Your task to perform on an android device: Go to Google maps Image 0: 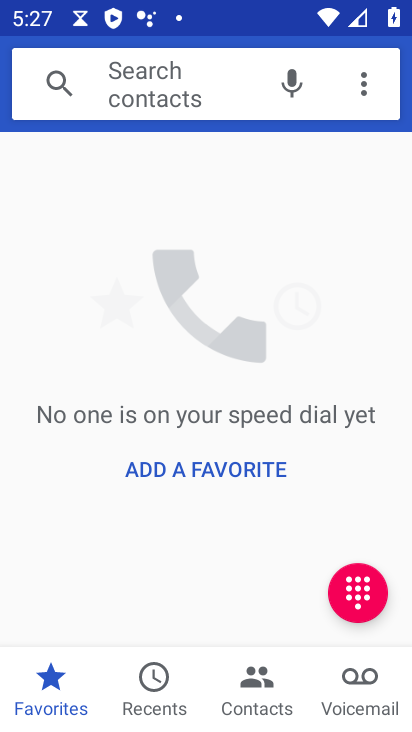
Step 0: press back button
Your task to perform on an android device: Go to Google maps Image 1: 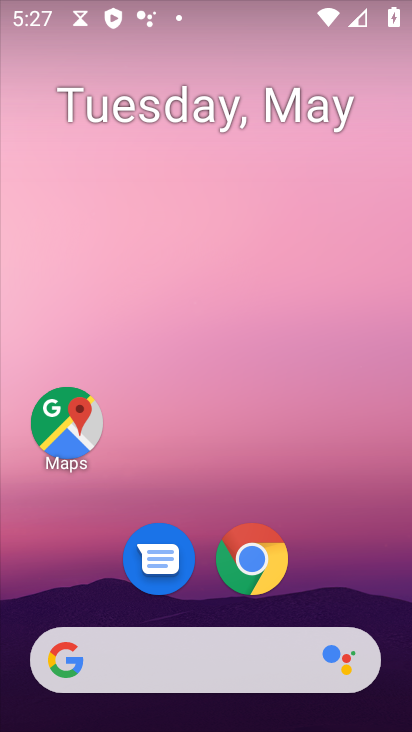
Step 1: drag from (356, 661) to (237, 14)
Your task to perform on an android device: Go to Google maps Image 2: 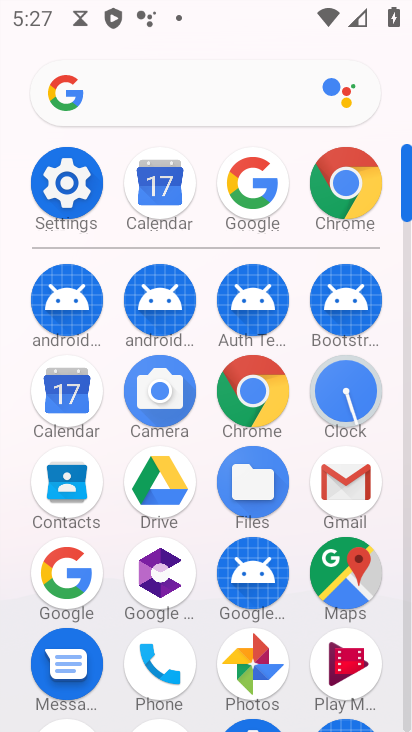
Step 2: click (249, 196)
Your task to perform on an android device: Go to Google maps Image 3: 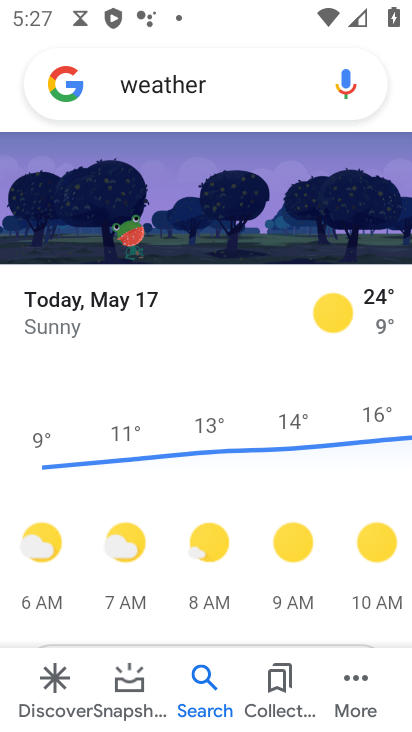
Step 3: press back button
Your task to perform on an android device: Go to Google maps Image 4: 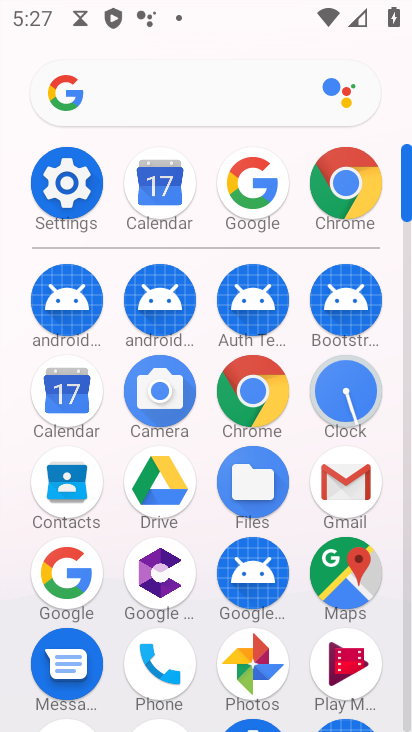
Step 4: click (352, 587)
Your task to perform on an android device: Go to Google maps Image 5: 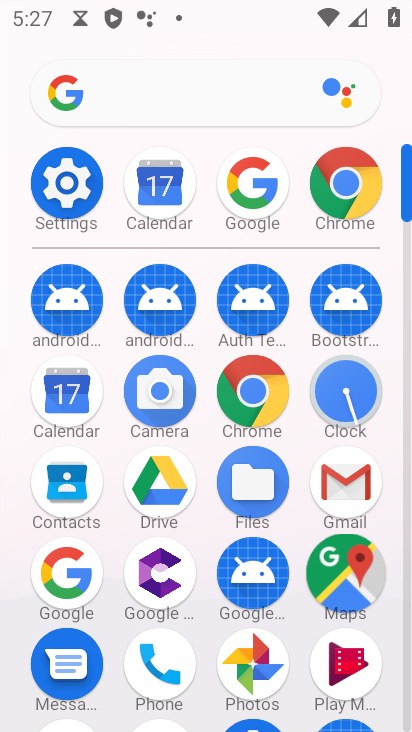
Step 5: click (354, 584)
Your task to perform on an android device: Go to Google maps Image 6: 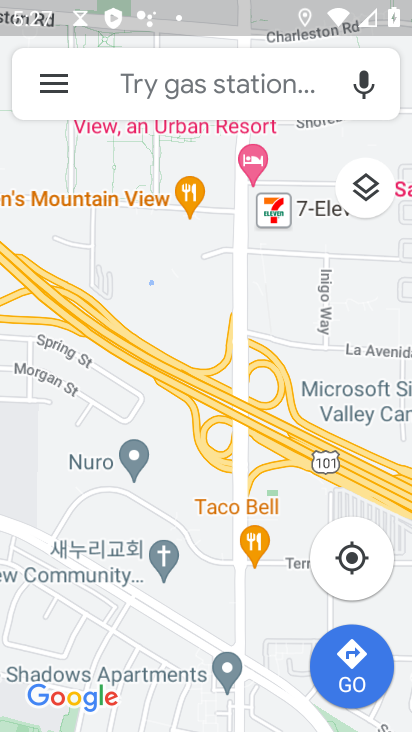
Step 6: click (59, 79)
Your task to perform on an android device: Go to Google maps Image 7: 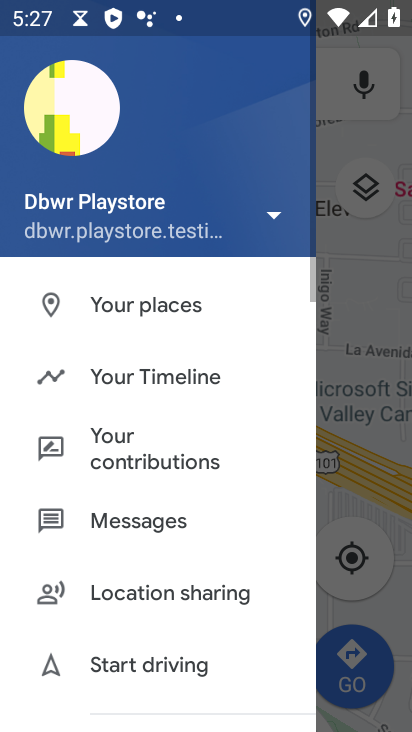
Step 7: click (379, 300)
Your task to perform on an android device: Go to Google maps Image 8: 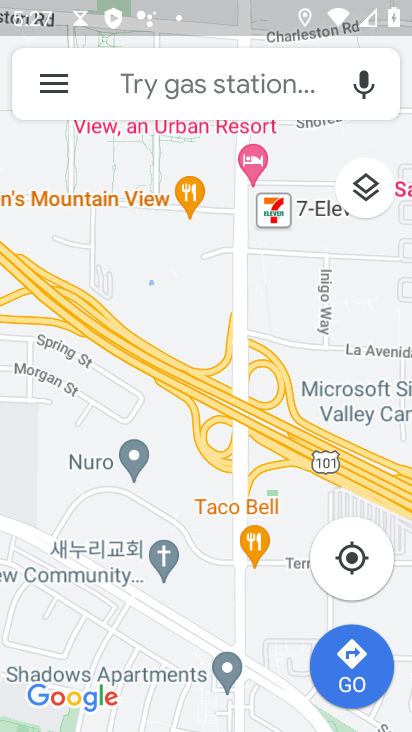
Step 8: task complete